Your task to perform on an android device: turn off picture-in-picture Image 0: 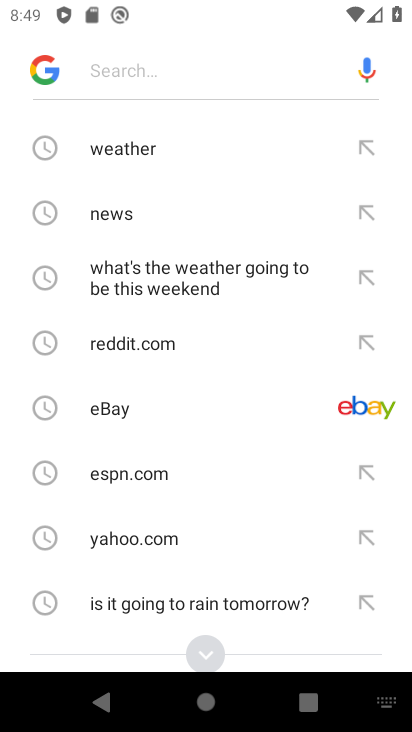
Step 0: press home button
Your task to perform on an android device: turn off picture-in-picture Image 1: 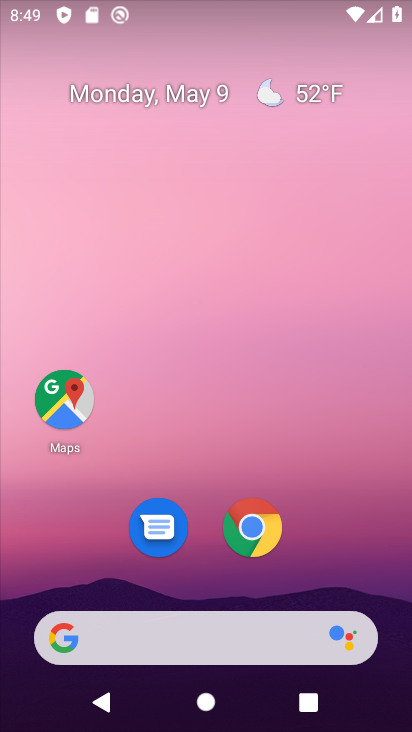
Step 1: drag from (354, 540) to (320, 127)
Your task to perform on an android device: turn off picture-in-picture Image 2: 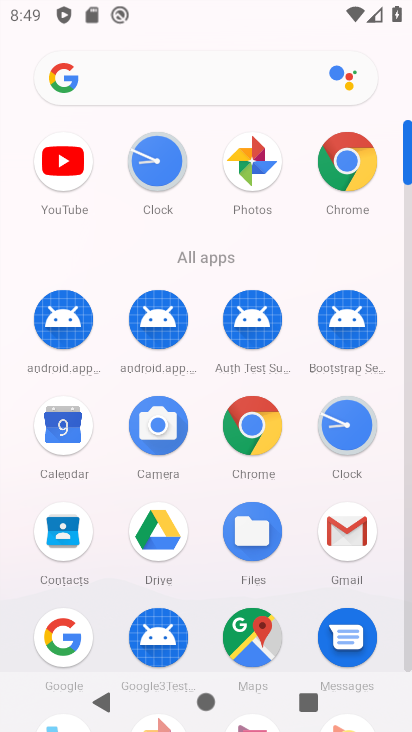
Step 2: drag from (225, 552) to (212, 166)
Your task to perform on an android device: turn off picture-in-picture Image 3: 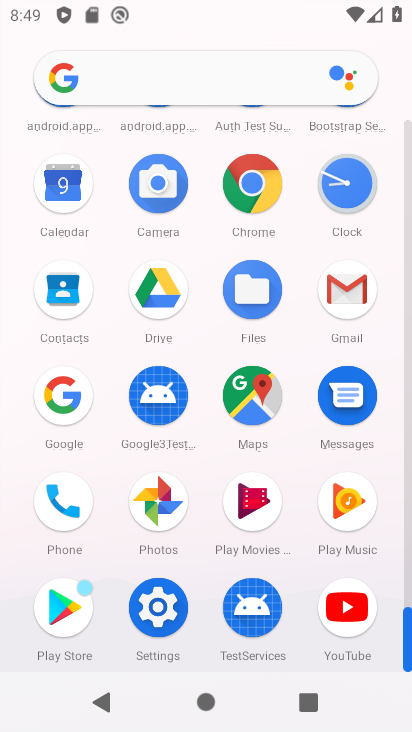
Step 3: click (153, 600)
Your task to perform on an android device: turn off picture-in-picture Image 4: 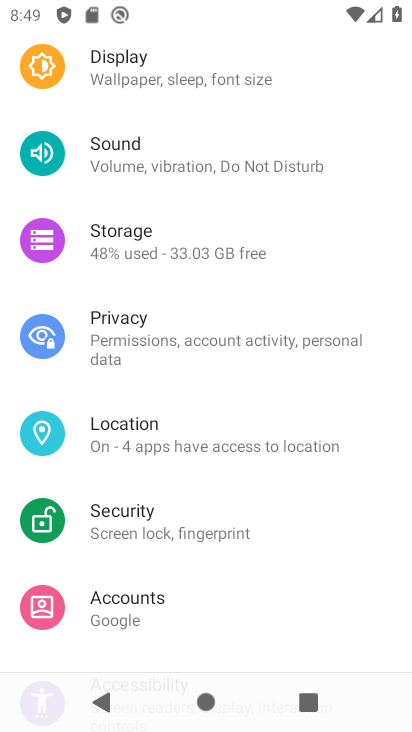
Step 4: drag from (223, 120) to (244, 500)
Your task to perform on an android device: turn off picture-in-picture Image 5: 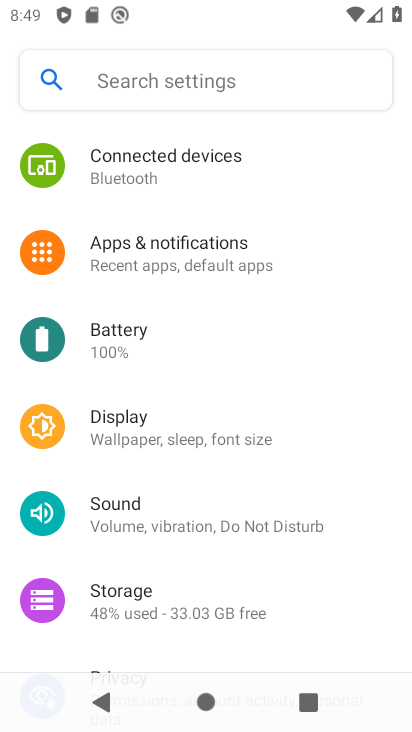
Step 5: click (230, 254)
Your task to perform on an android device: turn off picture-in-picture Image 6: 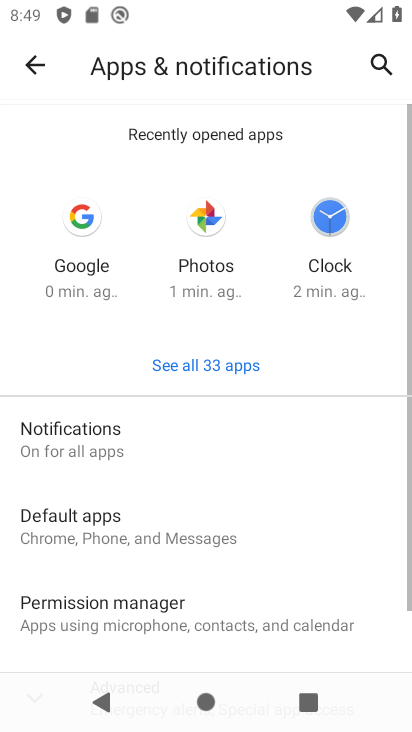
Step 6: drag from (258, 608) to (278, 178)
Your task to perform on an android device: turn off picture-in-picture Image 7: 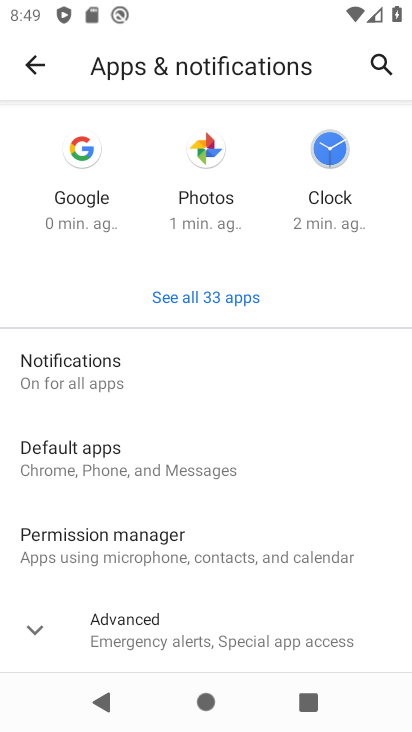
Step 7: click (178, 651)
Your task to perform on an android device: turn off picture-in-picture Image 8: 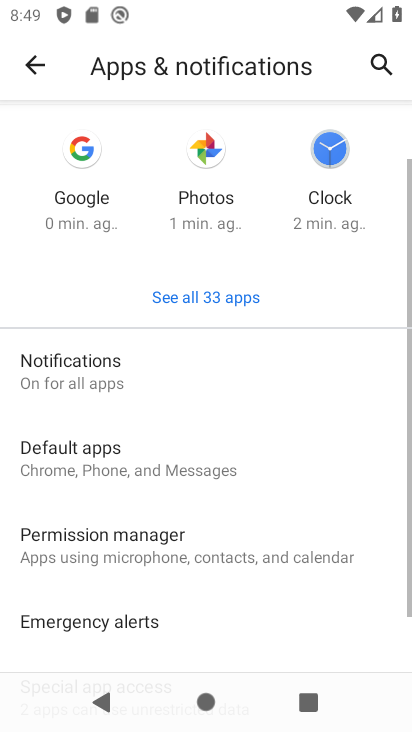
Step 8: drag from (214, 636) to (281, 252)
Your task to perform on an android device: turn off picture-in-picture Image 9: 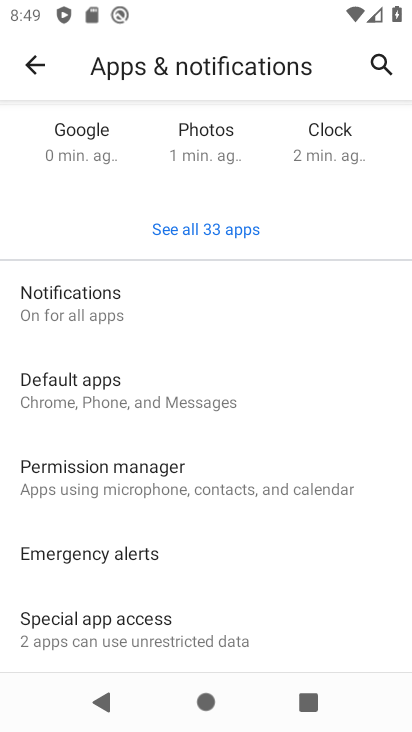
Step 9: click (207, 629)
Your task to perform on an android device: turn off picture-in-picture Image 10: 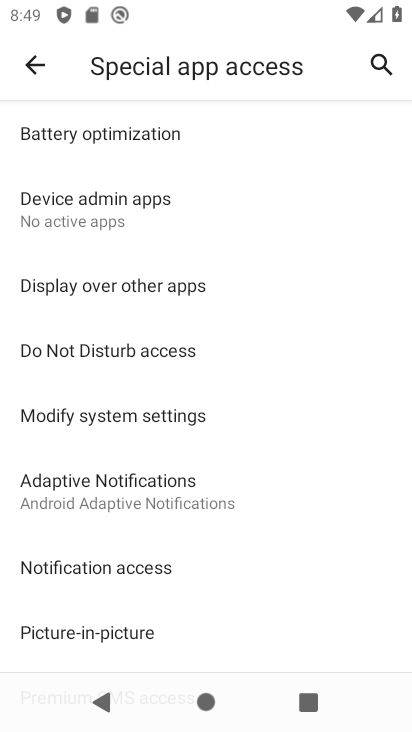
Step 10: click (163, 623)
Your task to perform on an android device: turn off picture-in-picture Image 11: 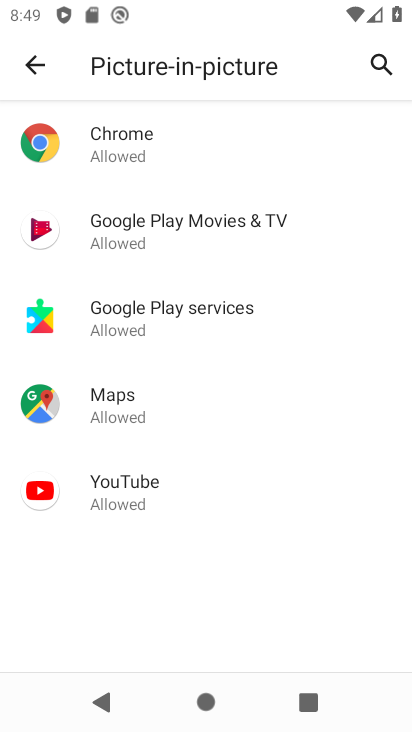
Step 11: click (133, 127)
Your task to perform on an android device: turn off picture-in-picture Image 12: 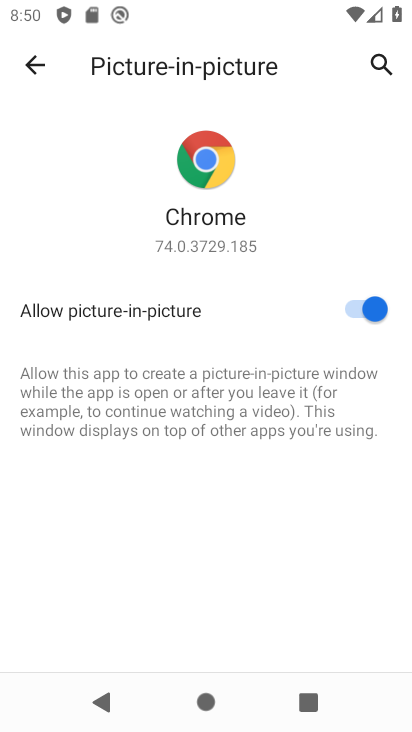
Step 12: click (358, 314)
Your task to perform on an android device: turn off picture-in-picture Image 13: 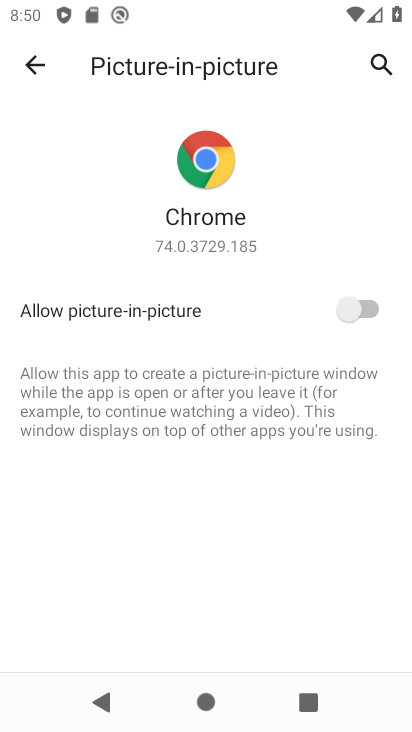
Step 13: task complete